Your task to perform on an android device: Go to privacy settings Image 0: 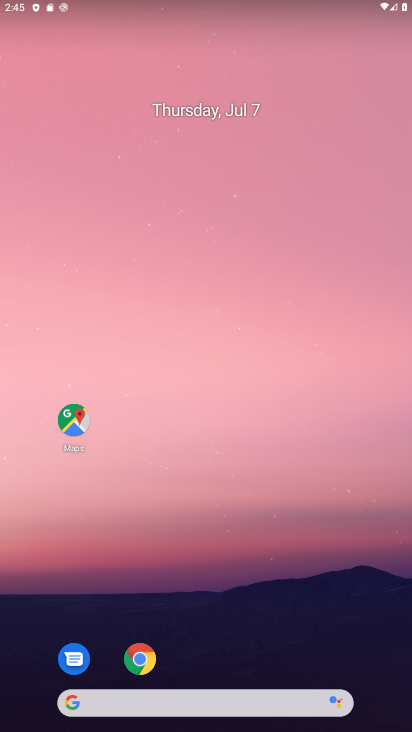
Step 0: drag from (215, 701) to (178, 5)
Your task to perform on an android device: Go to privacy settings Image 1: 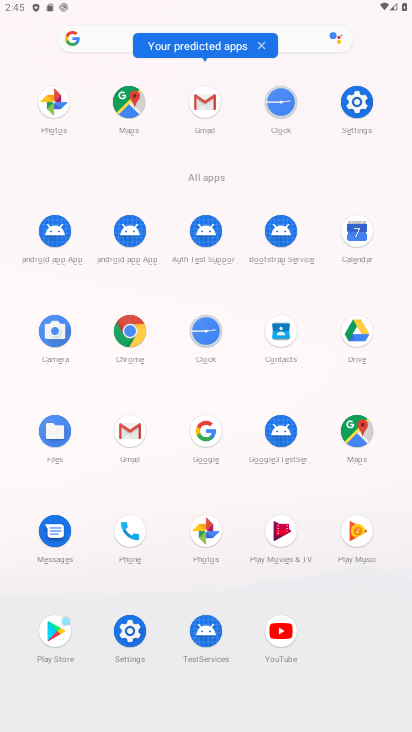
Step 1: click (352, 109)
Your task to perform on an android device: Go to privacy settings Image 2: 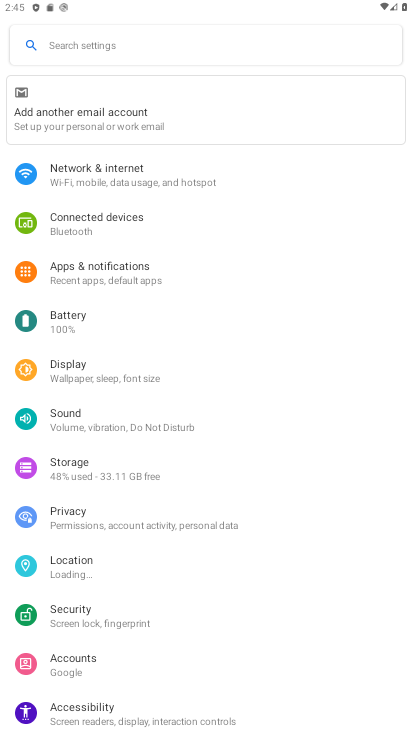
Step 2: click (73, 515)
Your task to perform on an android device: Go to privacy settings Image 3: 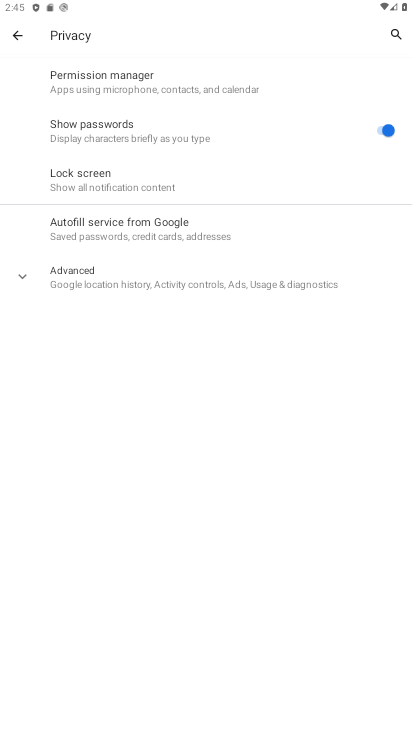
Step 3: task complete